Your task to perform on an android device: change the clock display to show seconds Image 0: 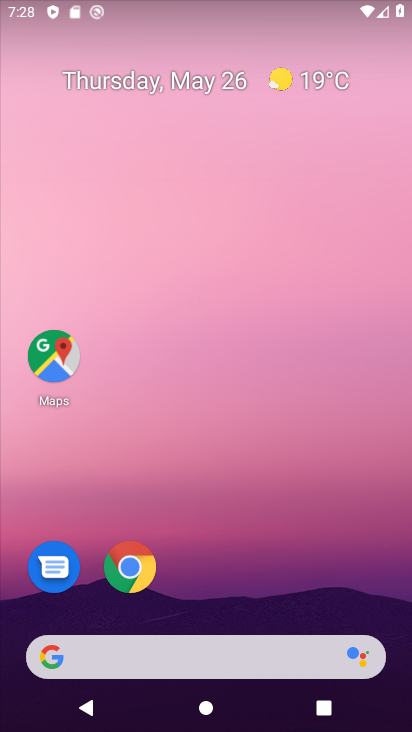
Step 0: drag from (244, 548) to (240, 33)
Your task to perform on an android device: change the clock display to show seconds Image 1: 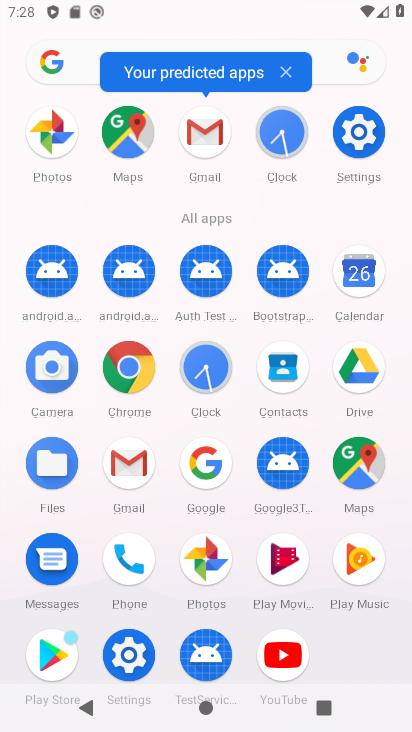
Step 1: click (289, 121)
Your task to perform on an android device: change the clock display to show seconds Image 2: 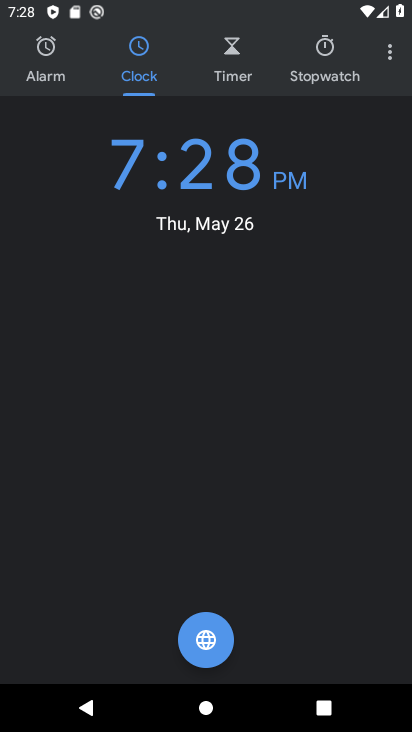
Step 2: click (385, 55)
Your task to perform on an android device: change the clock display to show seconds Image 3: 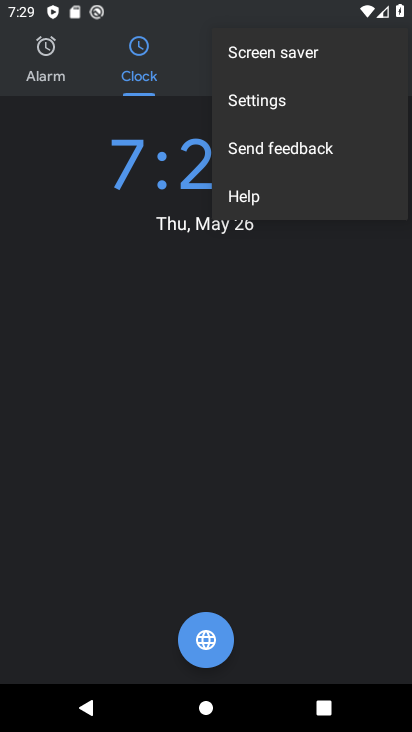
Step 3: click (338, 103)
Your task to perform on an android device: change the clock display to show seconds Image 4: 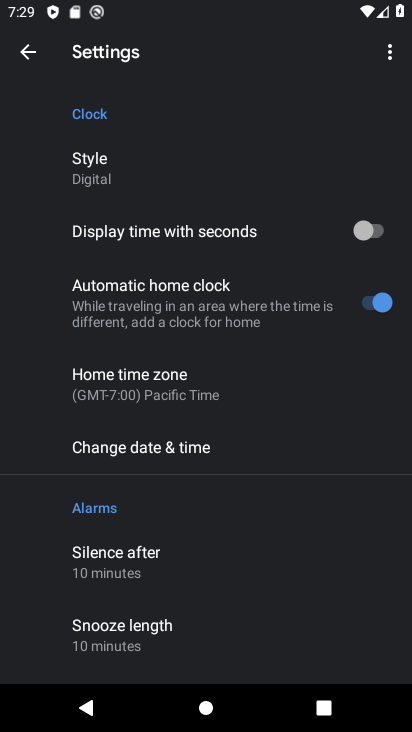
Step 4: click (369, 231)
Your task to perform on an android device: change the clock display to show seconds Image 5: 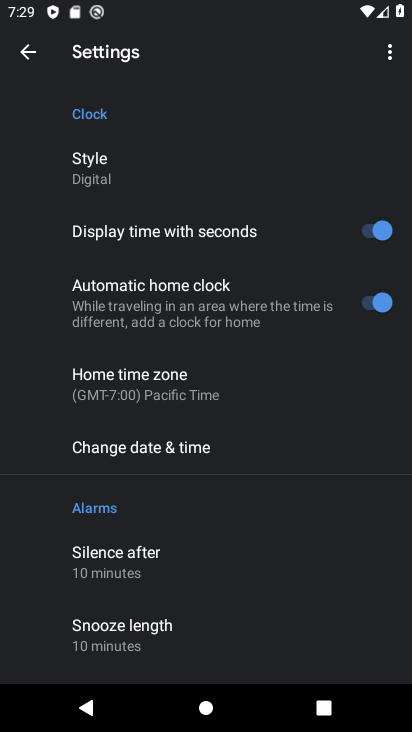
Step 5: click (29, 48)
Your task to perform on an android device: change the clock display to show seconds Image 6: 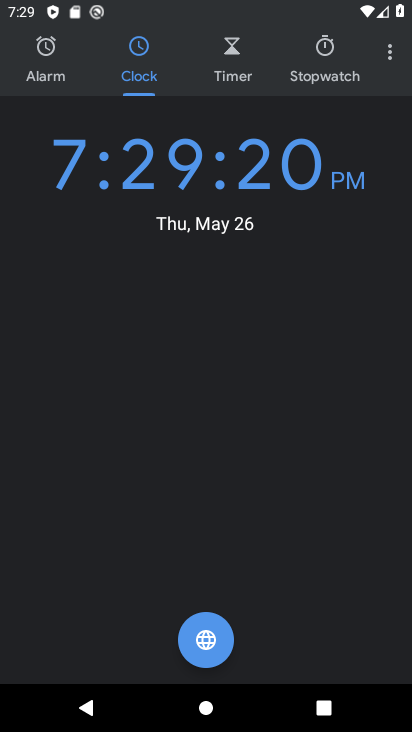
Step 6: task complete